Your task to perform on an android device: Show me recent news Image 0: 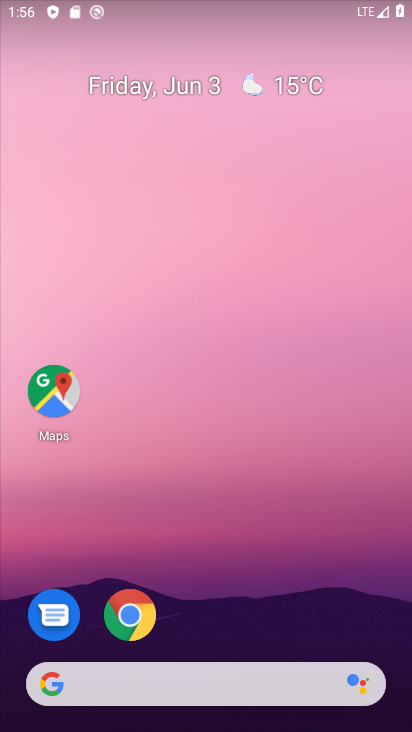
Step 0: drag from (219, 622) to (261, 292)
Your task to perform on an android device: Show me recent news Image 1: 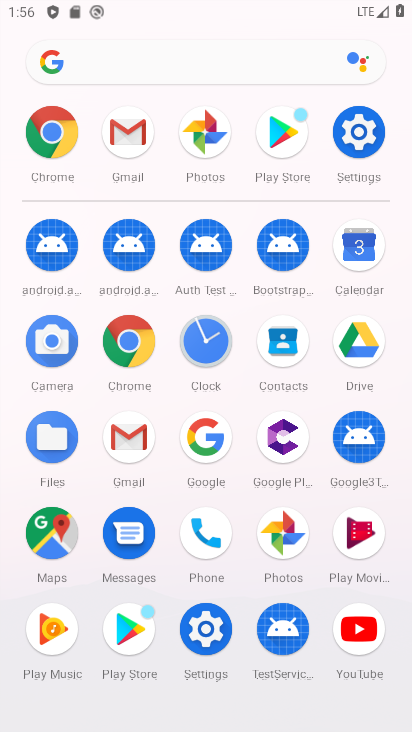
Step 1: click (120, 28)
Your task to perform on an android device: Show me recent news Image 2: 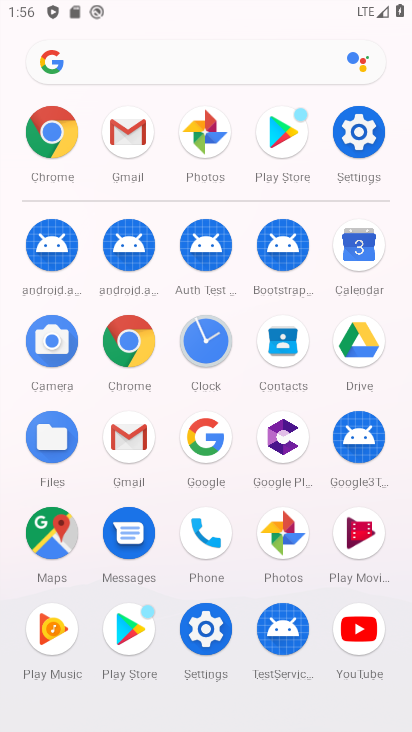
Step 2: click (106, 65)
Your task to perform on an android device: Show me recent news Image 3: 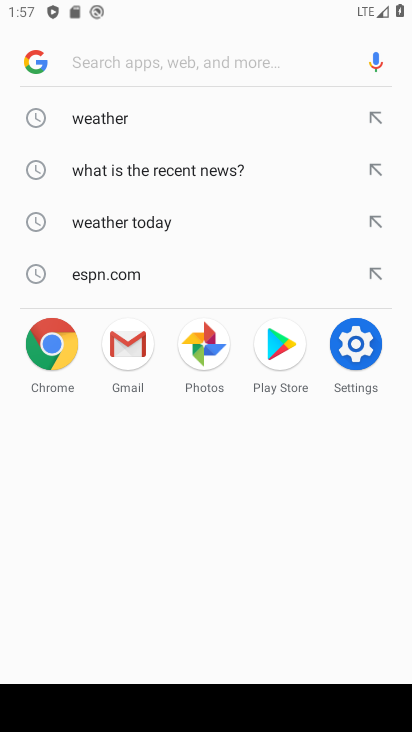
Step 3: type "recent news"
Your task to perform on an android device: Show me recent news Image 4: 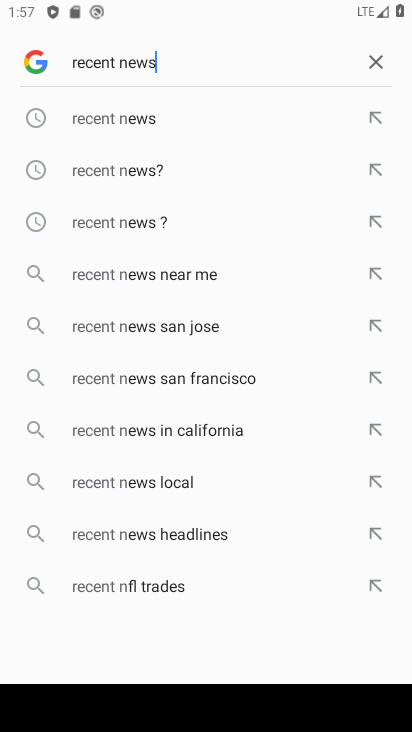
Step 4: type ""
Your task to perform on an android device: Show me recent news Image 5: 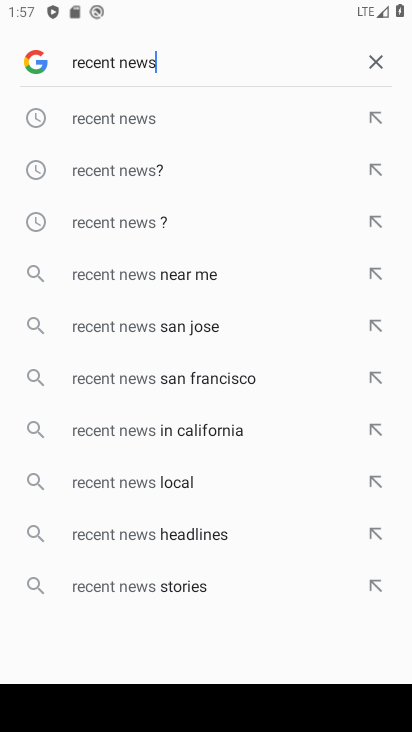
Step 5: click (152, 116)
Your task to perform on an android device: Show me recent news Image 6: 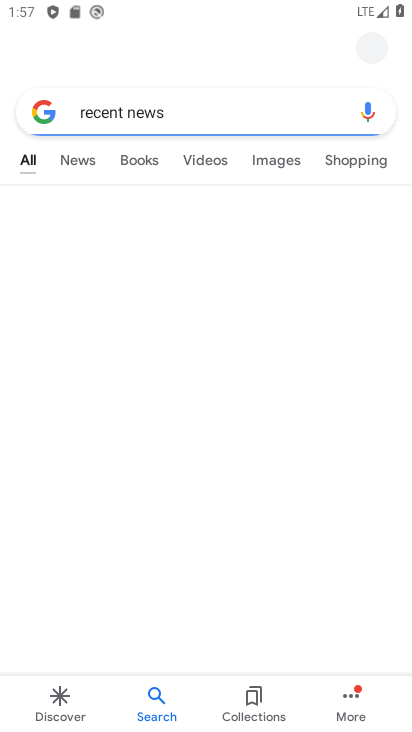
Step 6: task complete